Your task to perform on an android device: add a contact Image 0: 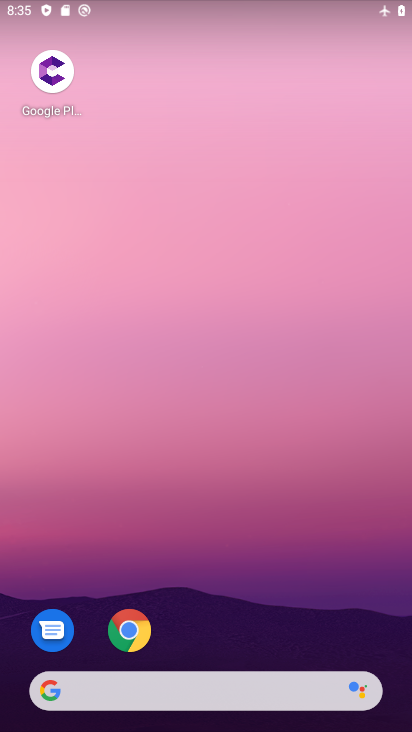
Step 0: drag from (361, 596) to (323, 186)
Your task to perform on an android device: add a contact Image 1: 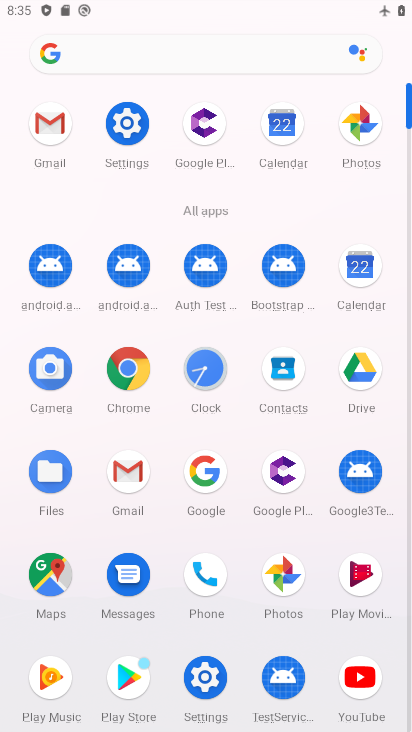
Step 1: click (270, 375)
Your task to perform on an android device: add a contact Image 2: 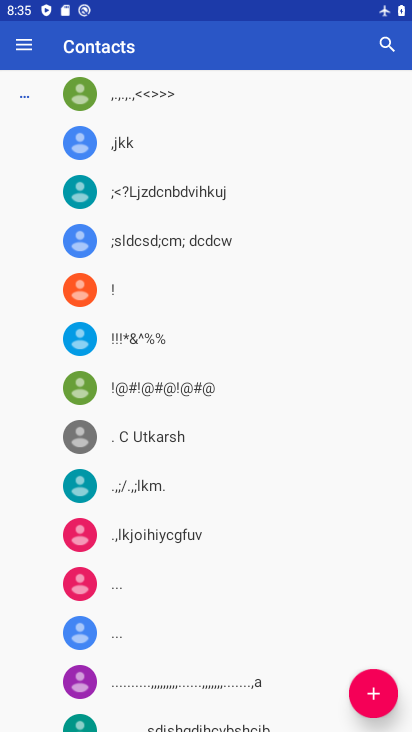
Step 2: click (368, 711)
Your task to perform on an android device: add a contact Image 3: 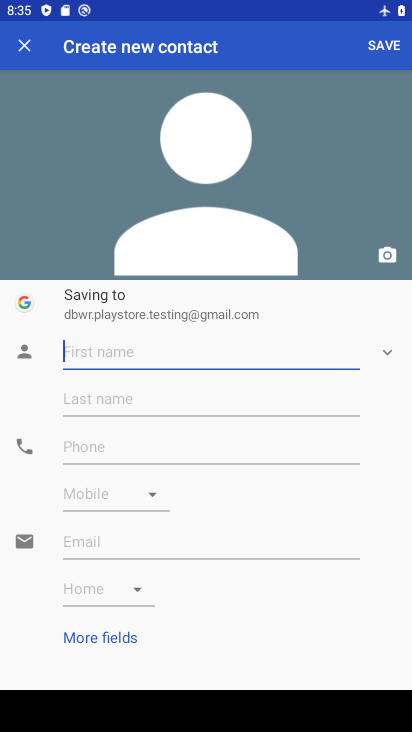
Step 3: click (187, 358)
Your task to perform on an android device: add a contact Image 4: 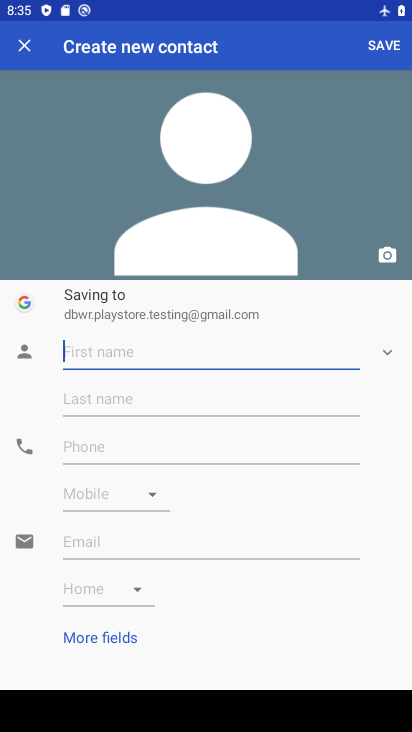
Step 4: click (187, 358)
Your task to perform on an android device: add a contact Image 5: 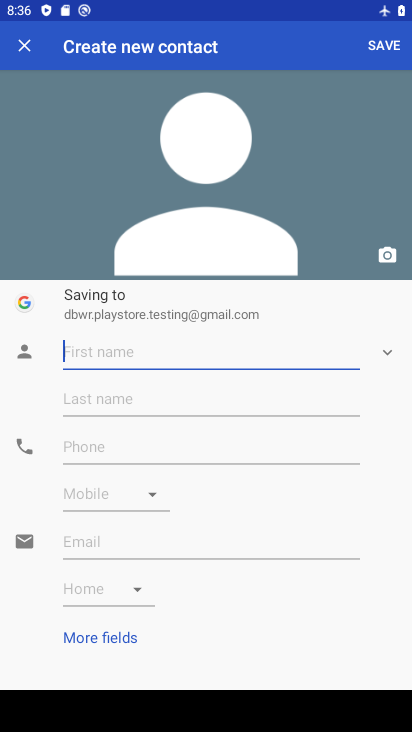
Step 5: type "ffxffggh"
Your task to perform on an android device: add a contact Image 6: 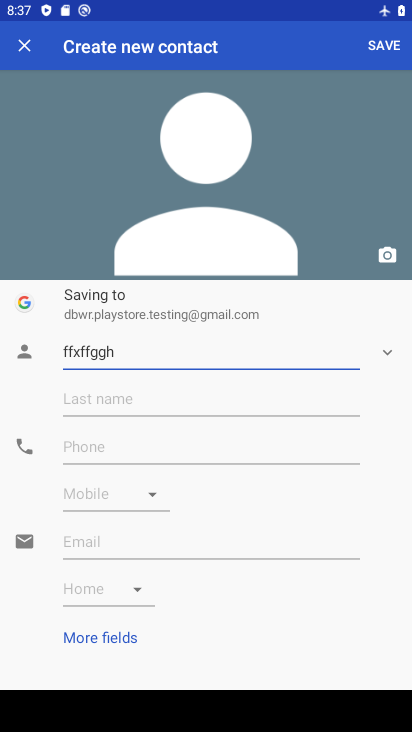
Step 6: click (86, 405)
Your task to perform on an android device: add a contact Image 7: 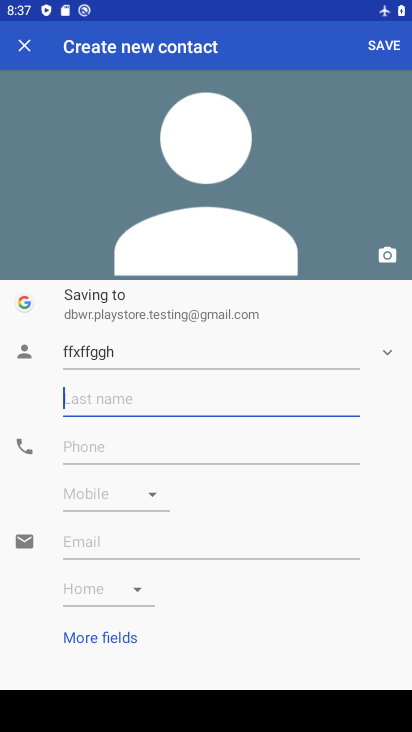
Step 7: type "ytytfjygyu"
Your task to perform on an android device: add a contact Image 8: 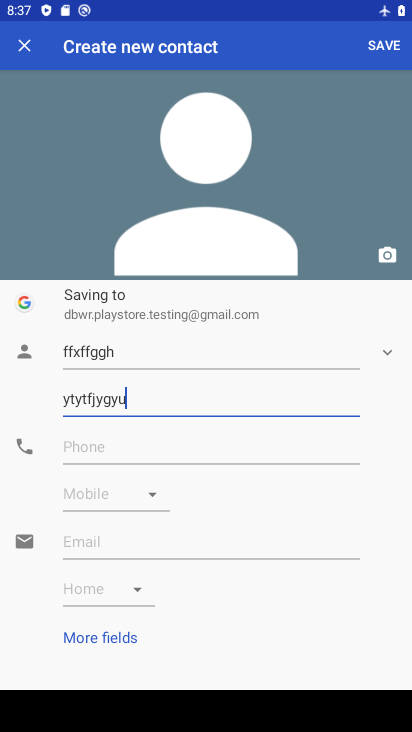
Step 8: click (96, 445)
Your task to perform on an android device: add a contact Image 9: 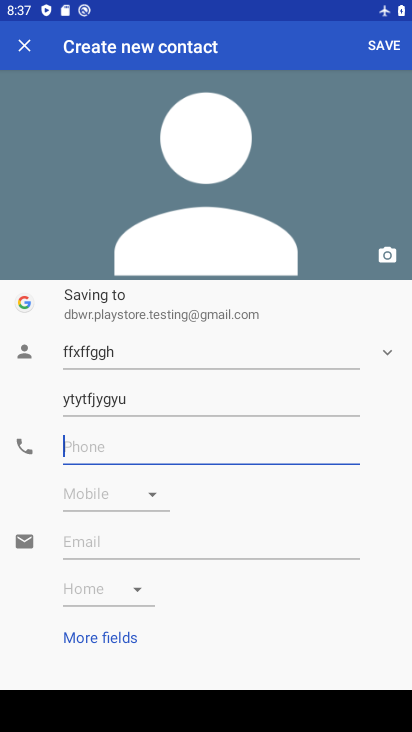
Step 9: type "5454654777"
Your task to perform on an android device: add a contact Image 10: 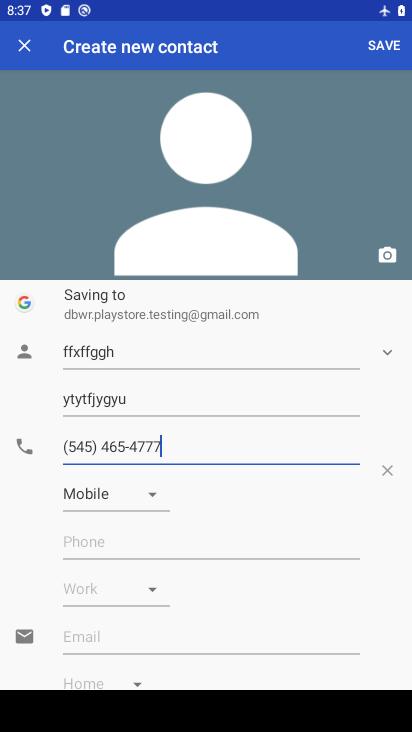
Step 10: click (378, 48)
Your task to perform on an android device: add a contact Image 11: 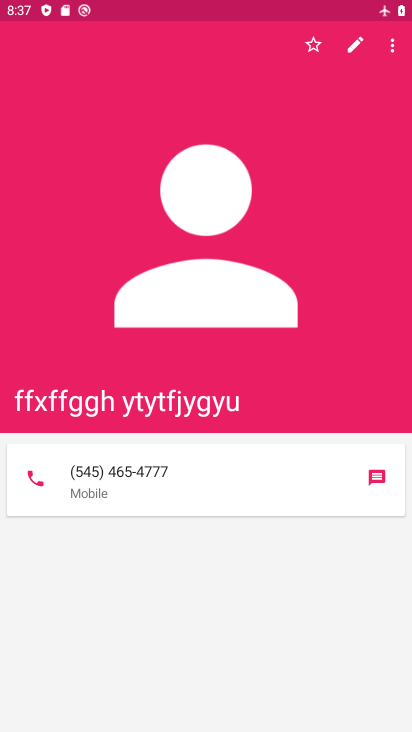
Step 11: task complete